Your task to perform on an android device: Go to Wikipedia Image 0: 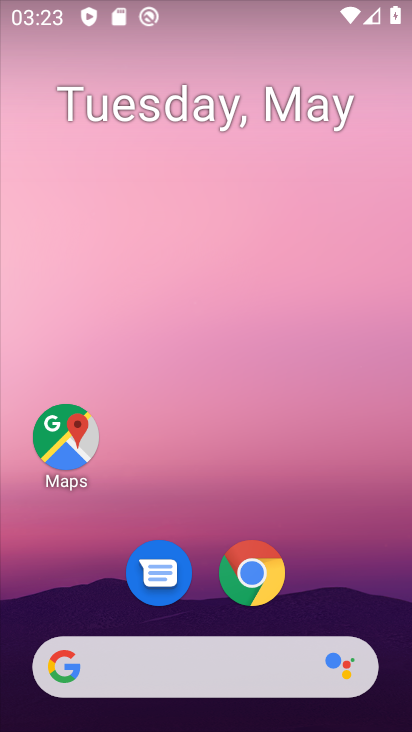
Step 0: click (250, 573)
Your task to perform on an android device: Go to Wikipedia Image 1: 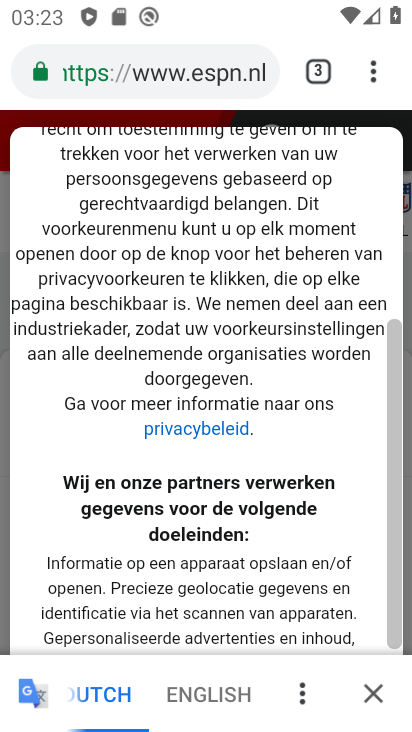
Step 1: click (310, 65)
Your task to perform on an android device: Go to Wikipedia Image 2: 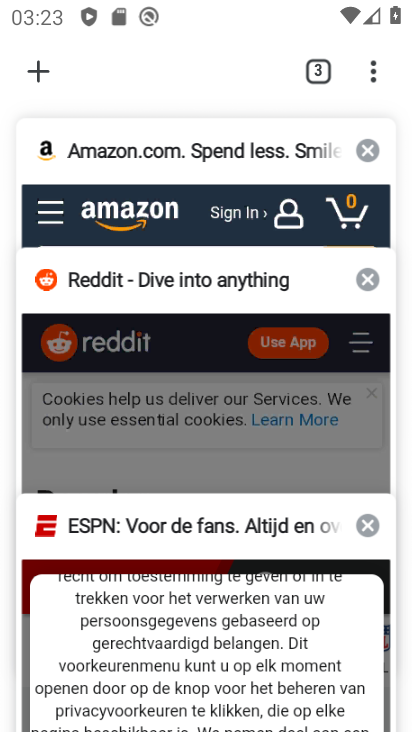
Step 2: click (43, 72)
Your task to perform on an android device: Go to Wikipedia Image 3: 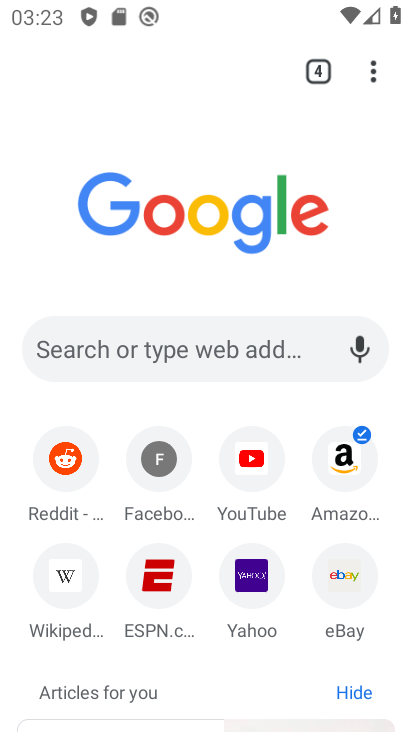
Step 3: click (73, 592)
Your task to perform on an android device: Go to Wikipedia Image 4: 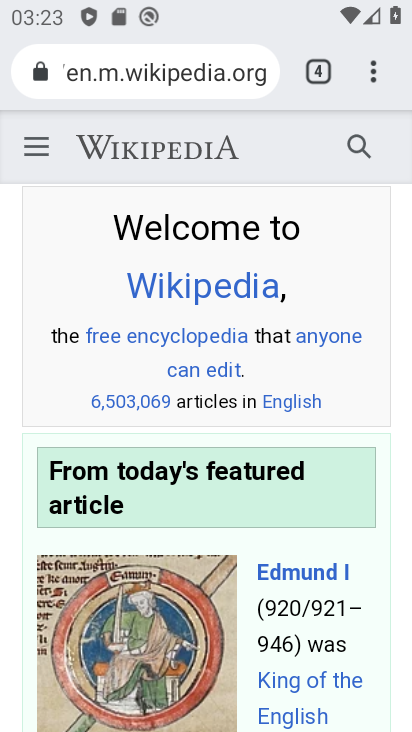
Step 4: task complete